Your task to perform on an android device: turn off location history Image 0: 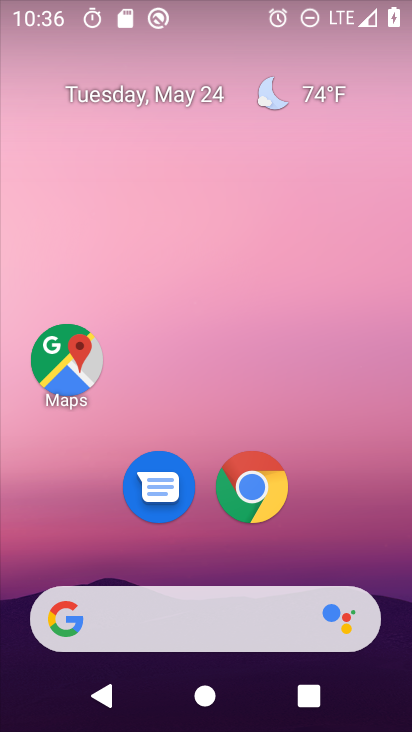
Step 0: click (61, 366)
Your task to perform on an android device: turn off location history Image 1: 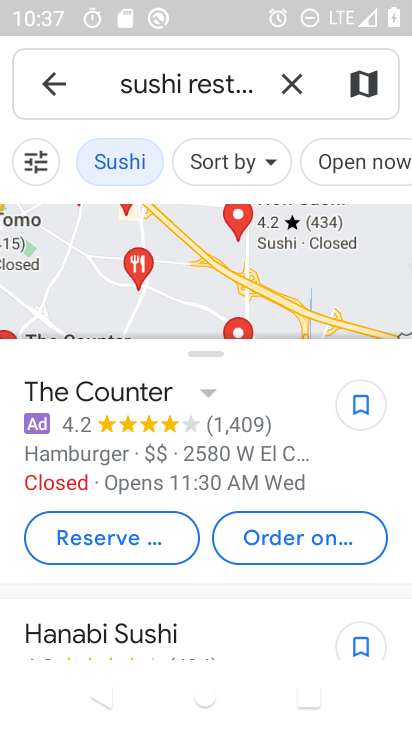
Step 1: click (285, 84)
Your task to perform on an android device: turn off location history Image 2: 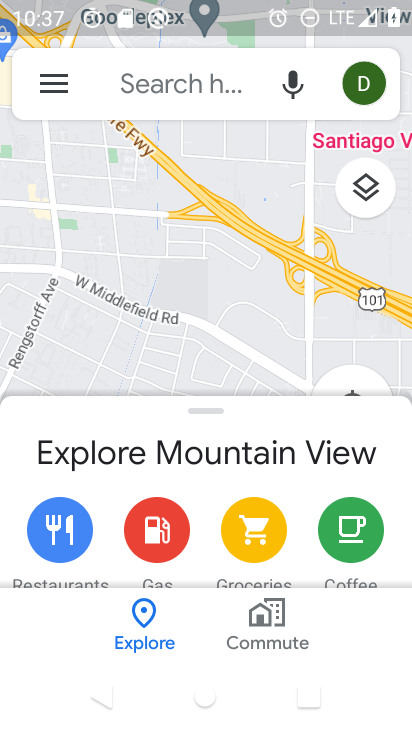
Step 2: click (53, 92)
Your task to perform on an android device: turn off location history Image 3: 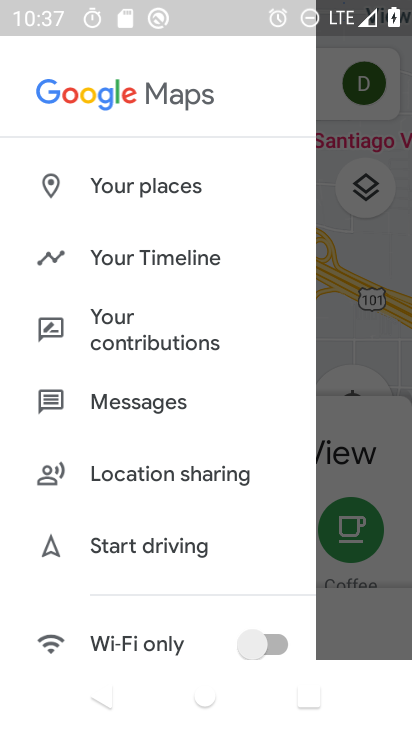
Step 3: click (134, 259)
Your task to perform on an android device: turn off location history Image 4: 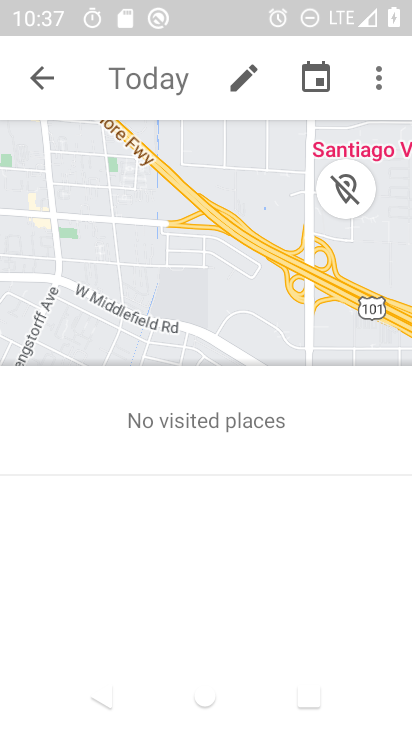
Step 4: click (375, 82)
Your task to perform on an android device: turn off location history Image 5: 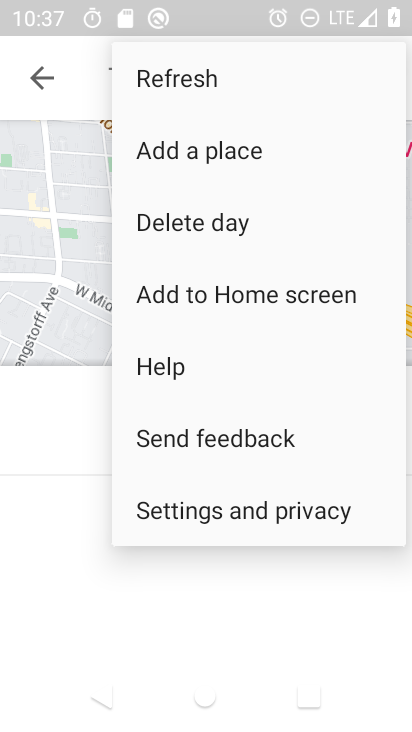
Step 5: click (189, 510)
Your task to perform on an android device: turn off location history Image 6: 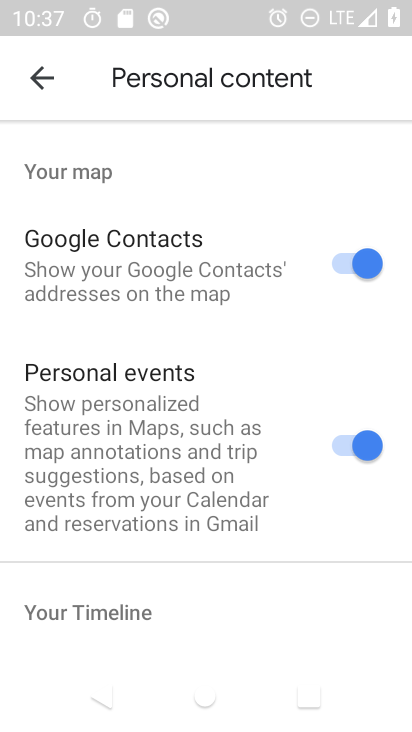
Step 6: drag from (192, 586) to (194, 159)
Your task to perform on an android device: turn off location history Image 7: 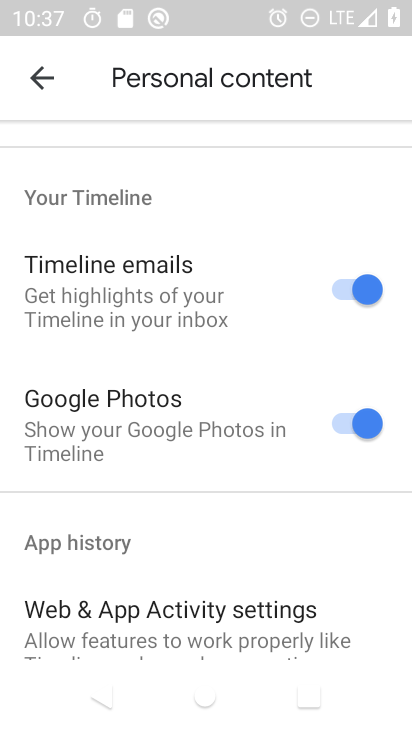
Step 7: drag from (134, 523) to (135, 116)
Your task to perform on an android device: turn off location history Image 8: 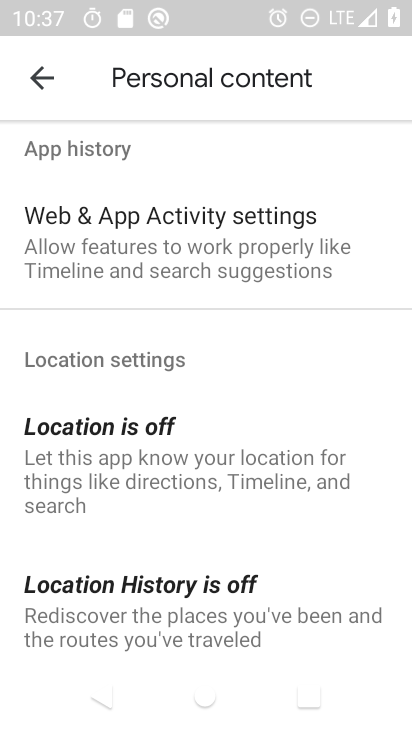
Step 8: drag from (144, 489) to (158, 177)
Your task to perform on an android device: turn off location history Image 9: 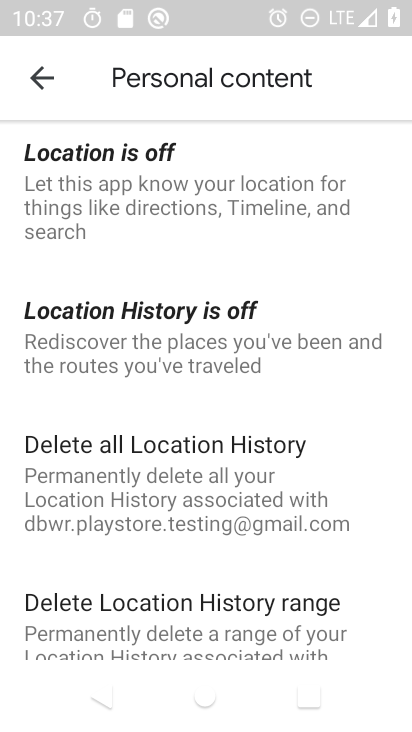
Step 9: click (137, 336)
Your task to perform on an android device: turn off location history Image 10: 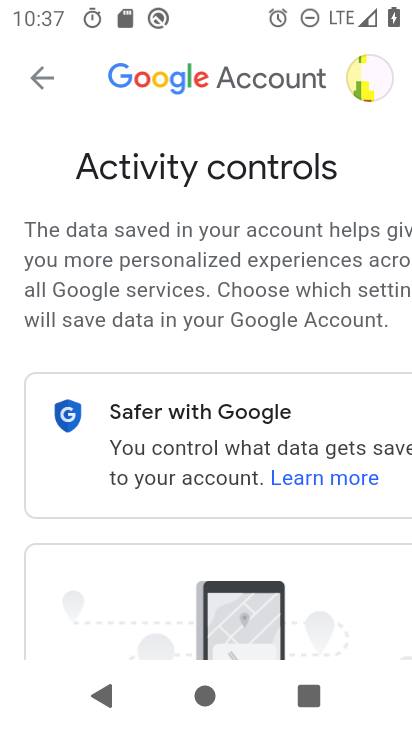
Step 10: task complete